Your task to perform on an android device: Open the calendar and show me this week's events Image 0: 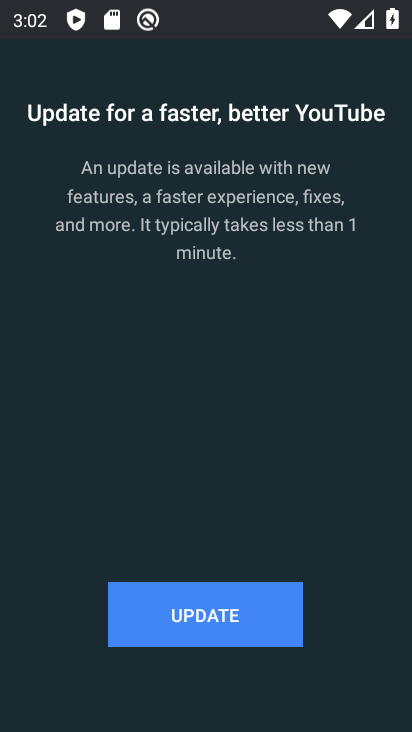
Step 0: press home button
Your task to perform on an android device: Open the calendar and show me this week's events Image 1: 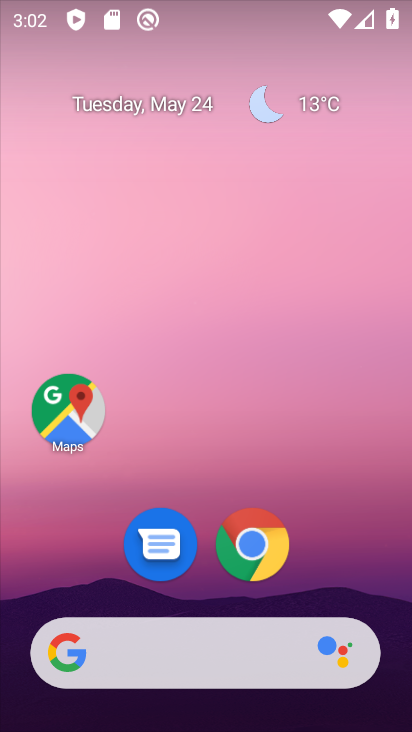
Step 1: drag from (369, 549) to (309, 150)
Your task to perform on an android device: Open the calendar and show me this week's events Image 2: 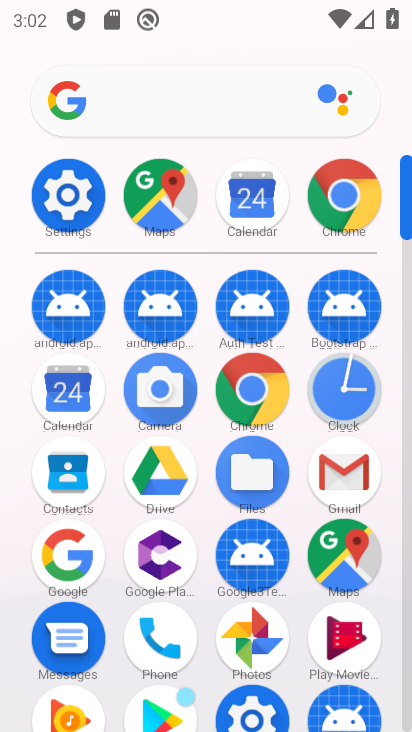
Step 2: click (81, 385)
Your task to perform on an android device: Open the calendar and show me this week's events Image 3: 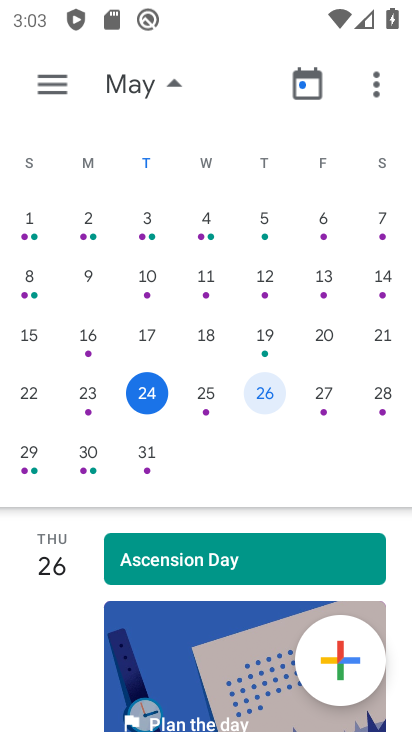
Step 3: click (208, 393)
Your task to perform on an android device: Open the calendar and show me this week's events Image 4: 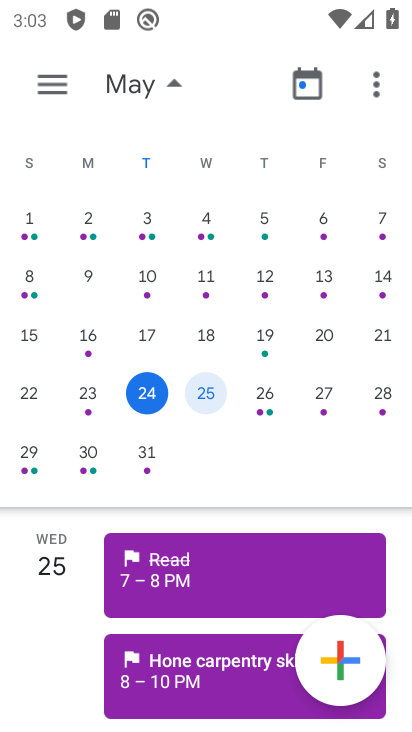
Step 4: task complete